Your task to perform on an android device: change the clock display to digital Image 0: 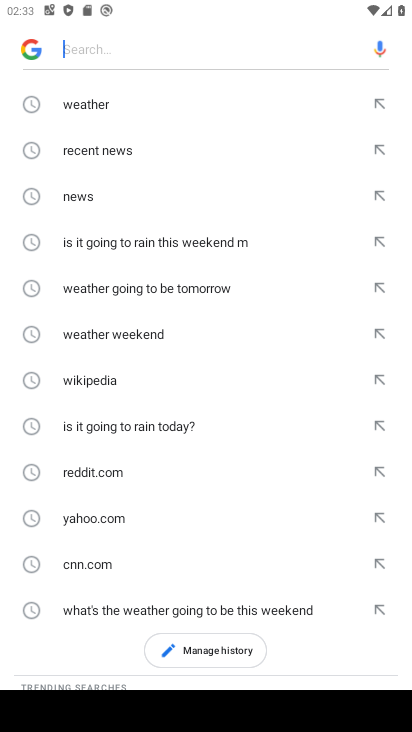
Step 0: press home button
Your task to perform on an android device: change the clock display to digital Image 1: 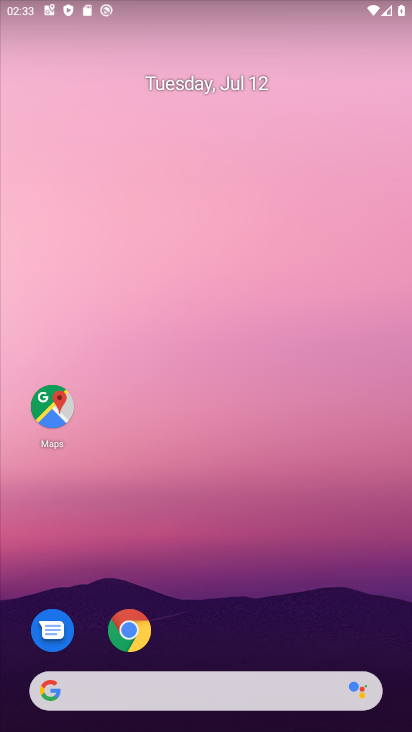
Step 1: drag from (344, 625) to (324, 77)
Your task to perform on an android device: change the clock display to digital Image 2: 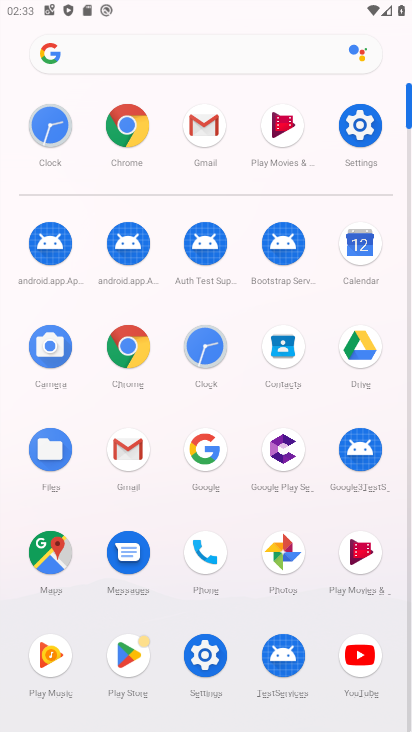
Step 2: click (203, 345)
Your task to perform on an android device: change the clock display to digital Image 3: 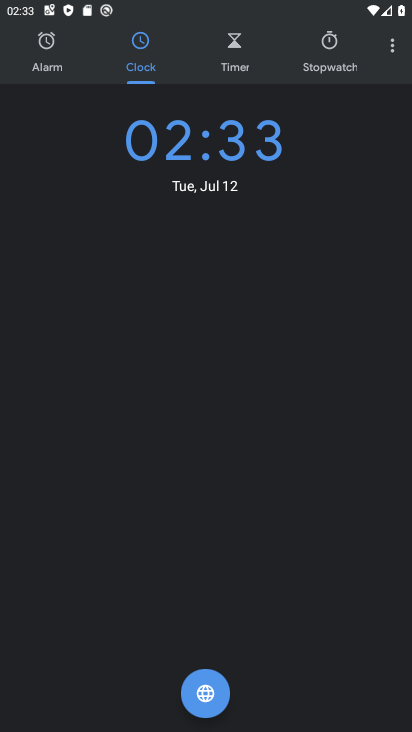
Step 3: click (390, 53)
Your task to perform on an android device: change the clock display to digital Image 4: 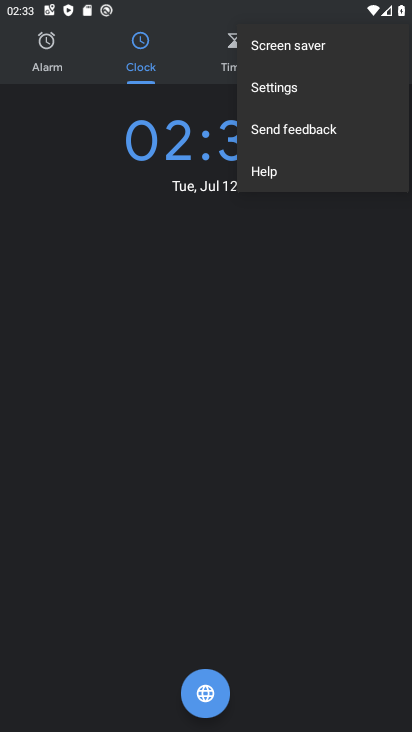
Step 4: click (270, 91)
Your task to perform on an android device: change the clock display to digital Image 5: 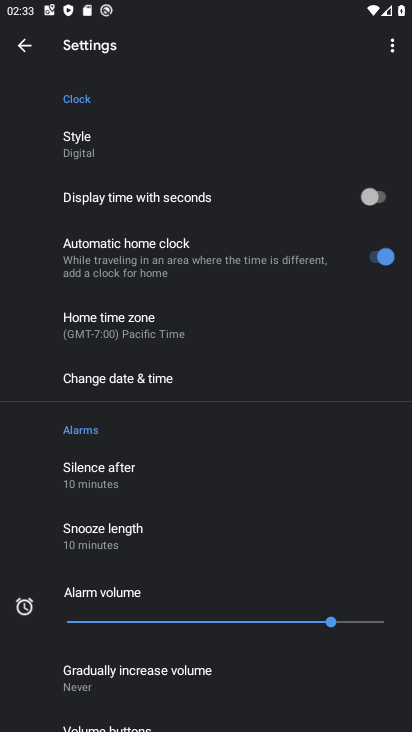
Step 5: task complete